Your task to perform on an android device: Search for vegetarian restaurants on Maps Image 0: 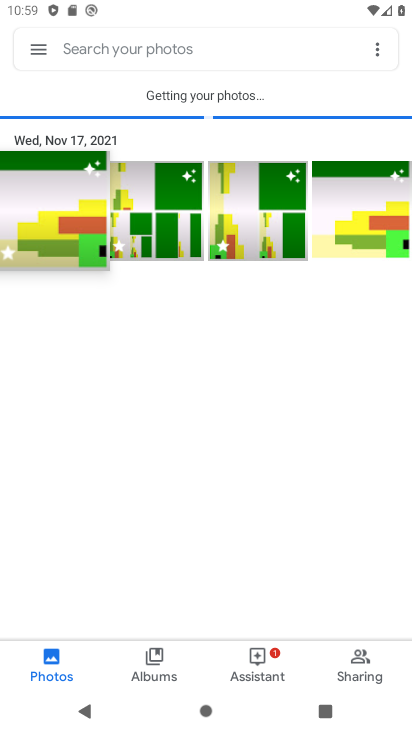
Step 0: press home button
Your task to perform on an android device: Search for vegetarian restaurants on Maps Image 1: 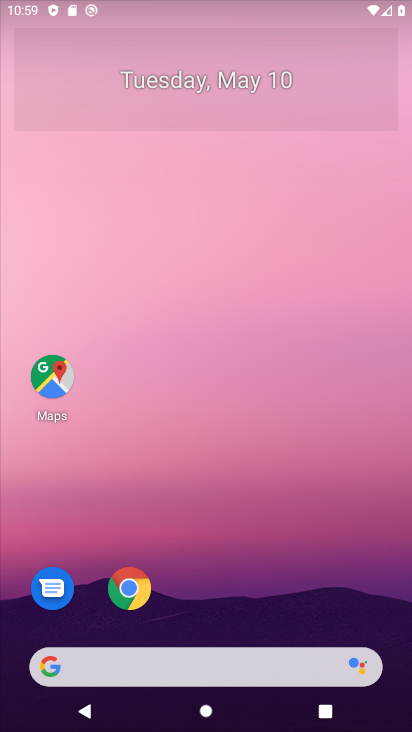
Step 1: drag from (241, 499) to (69, 68)
Your task to perform on an android device: Search for vegetarian restaurants on Maps Image 2: 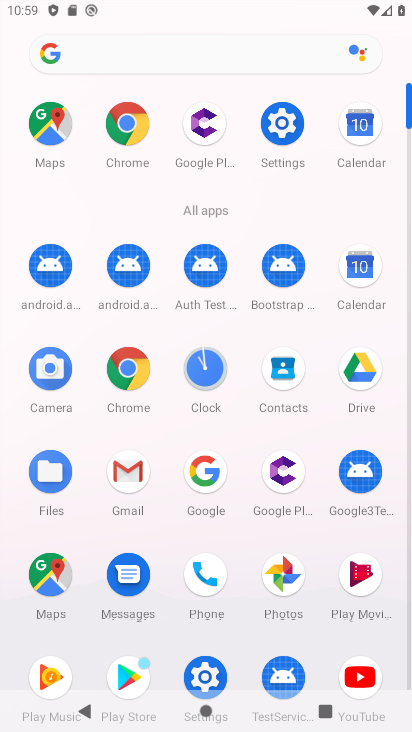
Step 2: click (56, 124)
Your task to perform on an android device: Search for vegetarian restaurants on Maps Image 3: 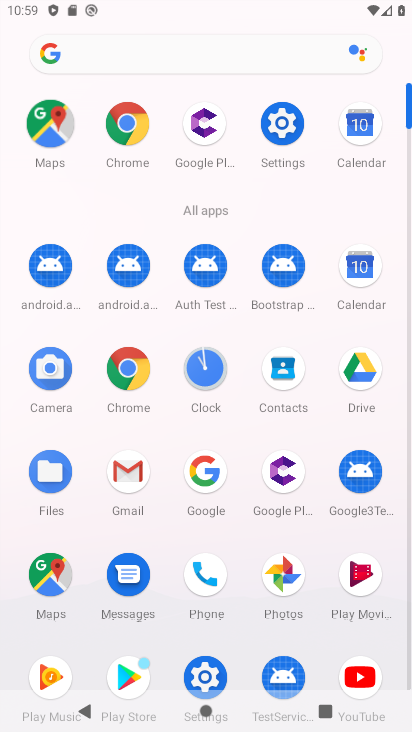
Step 3: click (56, 129)
Your task to perform on an android device: Search for vegetarian restaurants on Maps Image 4: 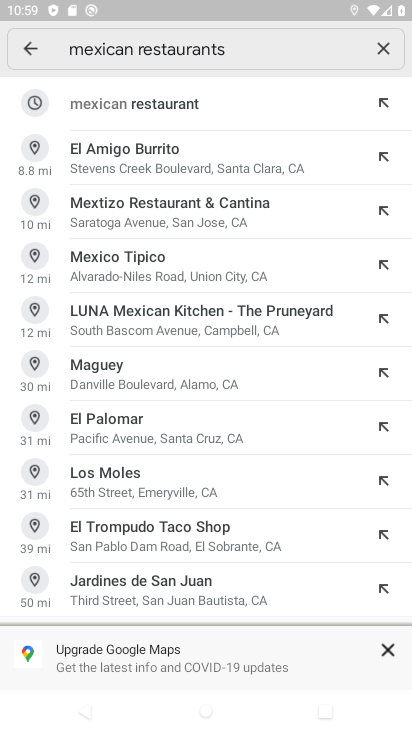
Step 4: click (392, 42)
Your task to perform on an android device: Search for vegetarian restaurants on Maps Image 5: 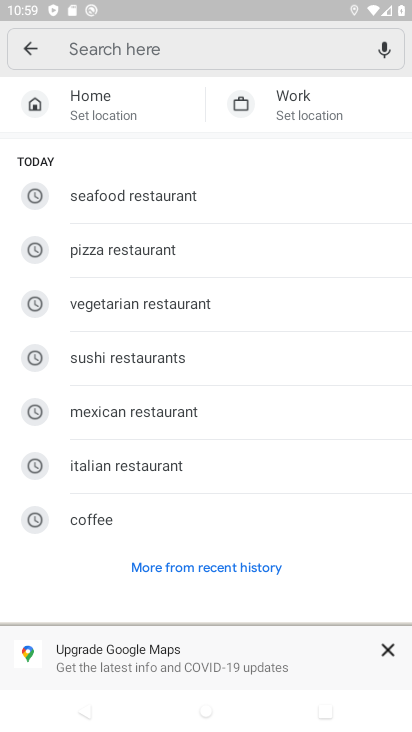
Step 5: click (117, 293)
Your task to perform on an android device: Search for vegetarian restaurants on Maps Image 6: 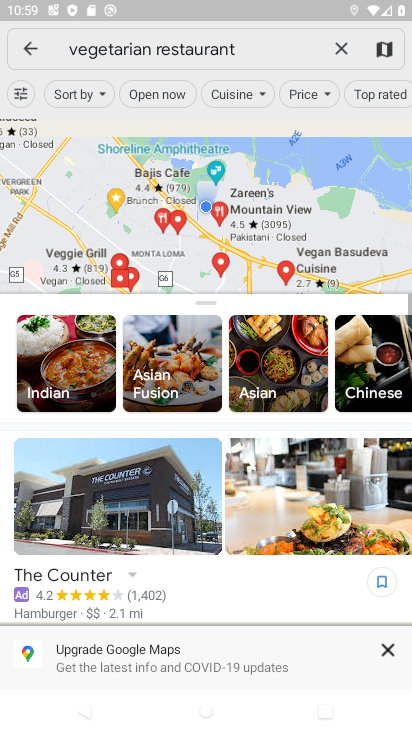
Step 6: task complete